Your task to perform on an android device: Open Google Chrome and open the bookmarks view Image 0: 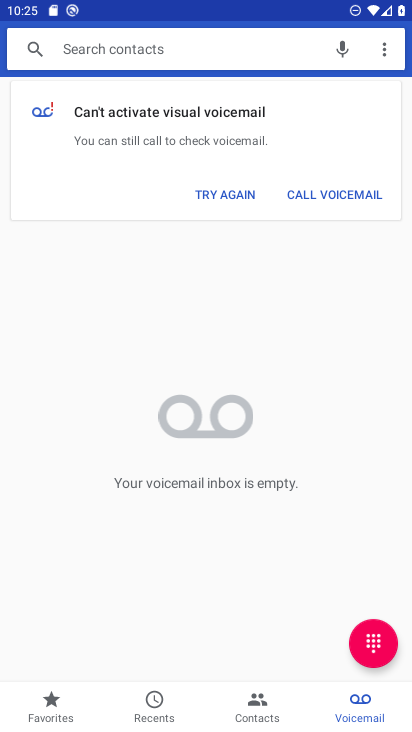
Step 0: press home button
Your task to perform on an android device: Open Google Chrome and open the bookmarks view Image 1: 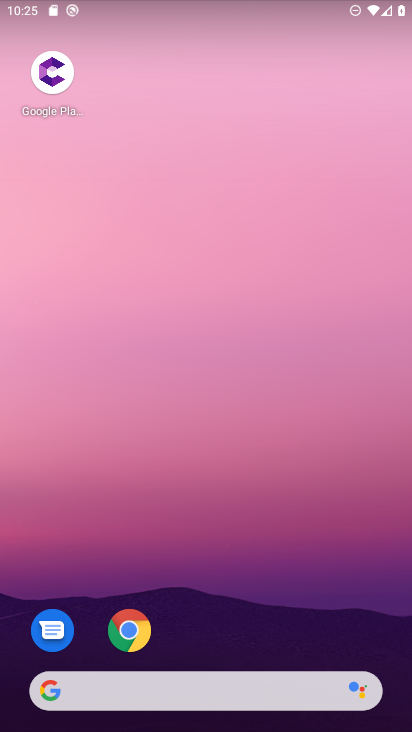
Step 1: click (131, 629)
Your task to perform on an android device: Open Google Chrome and open the bookmarks view Image 2: 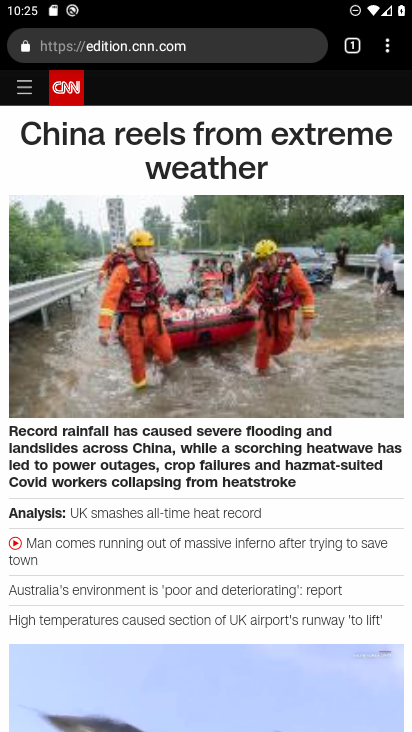
Step 2: click (388, 46)
Your task to perform on an android device: Open Google Chrome and open the bookmarks view Image 3: 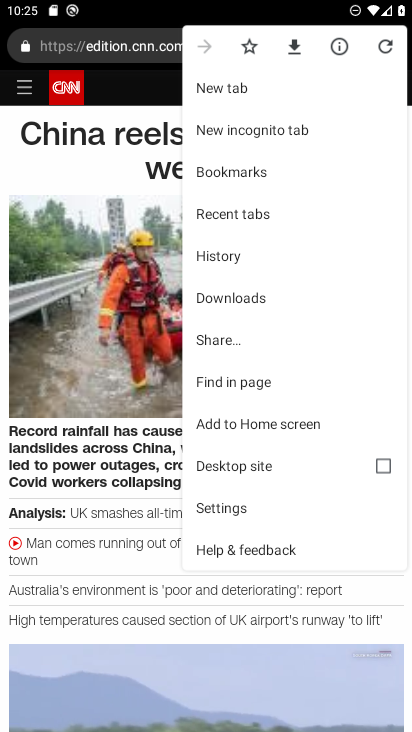
Step 3: click (255, 176)
Your task to perform on an android device: Open Google Chrome and open the bookmarks view Image 4: 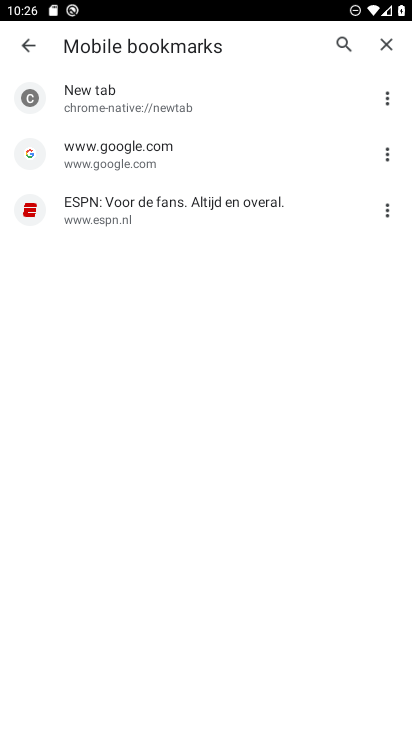
Step 4: task complete